Your task to perform on an android device: Search for a coffee table on IKEA Image 0: 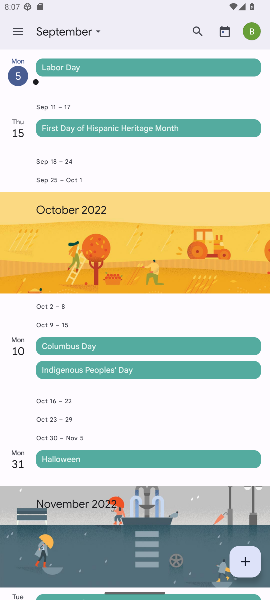
Step 0: press home button
Your task to perform on an android device: Search for a coffee table on IKEA Image 1: 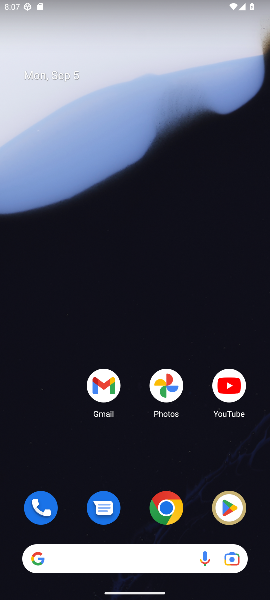
Step 1: click (171, 511)
Your task to perform on an android device: Search for a coffee table on IKEA Image 2: 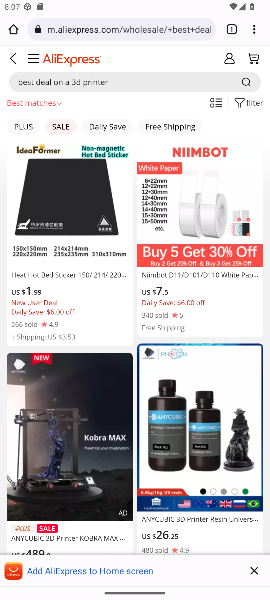
Step 2: click (156, 32)
Your task to perform on an android device: Search for a coffee table on IKEA Image 3: 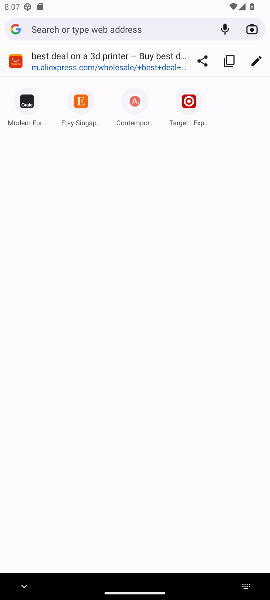
Step 3: type "ikea"
Your task to perform on an android device: Search for a coffee table on IKEA Image 4: 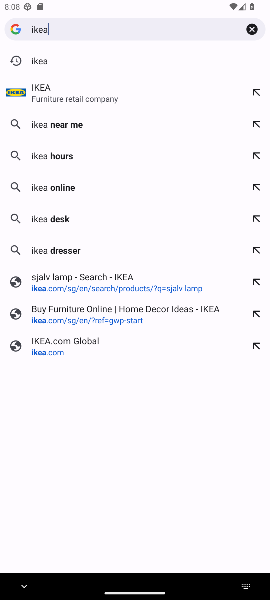
Step 4: click (39, 60)
Your task to perform on an android device: Search for a coffee table on IKEA Image 5: 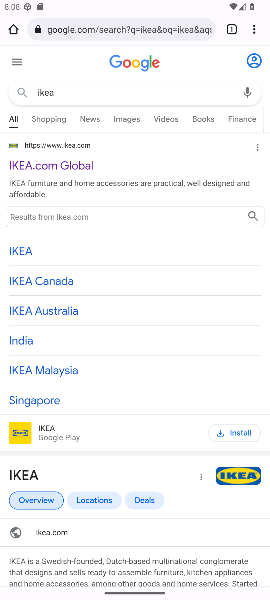
Step 5: click (48, 174)
Your task to perform on an android device: Search for a coffee table on IKEA Image 6: 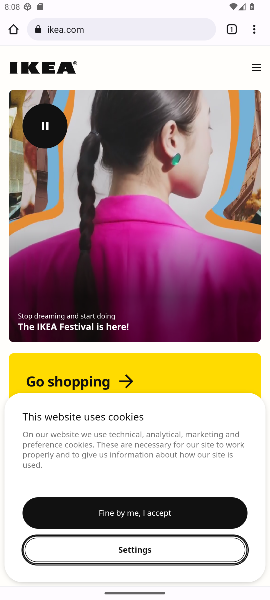
Step 6: click (87, 384)
Your task to perform on an android device: Search for a coffee table on IKEA Image 7: 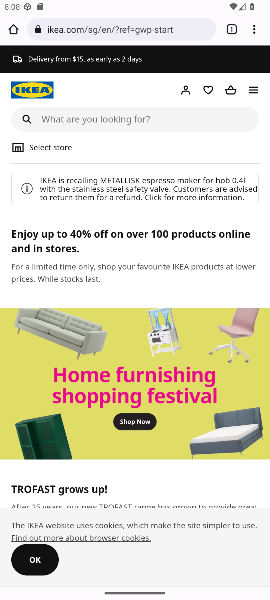
Step 7: click (117, 118)
Your task to perform on an android device: Search for a coffee table on IKEA Image 8: 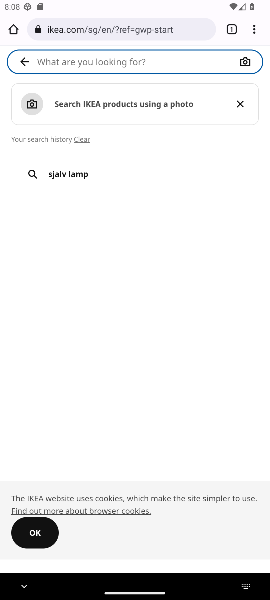
Step 8: type "coffee table"
Your task to perform on an android device: Search for a coffee table on IKEA Image 9: 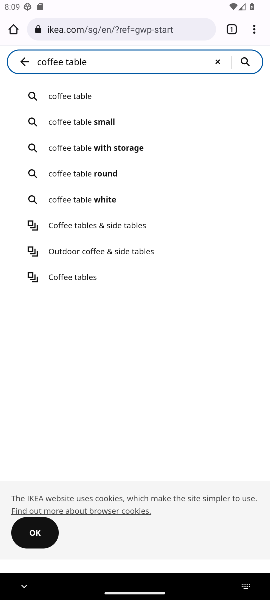
Step 9: click (63, 101)
Your task to perform on an android device: Search for a coffee table on IKEA Image 10: 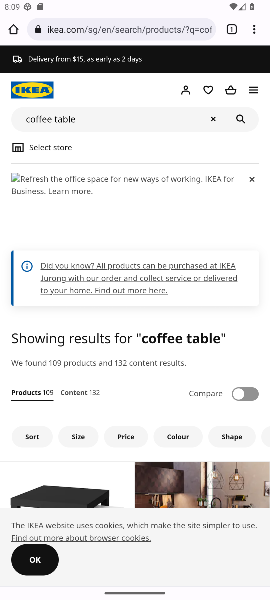
Step 10: task complete